Your task to perform on an android device: choose inbox layout in the gmail app Image 0: 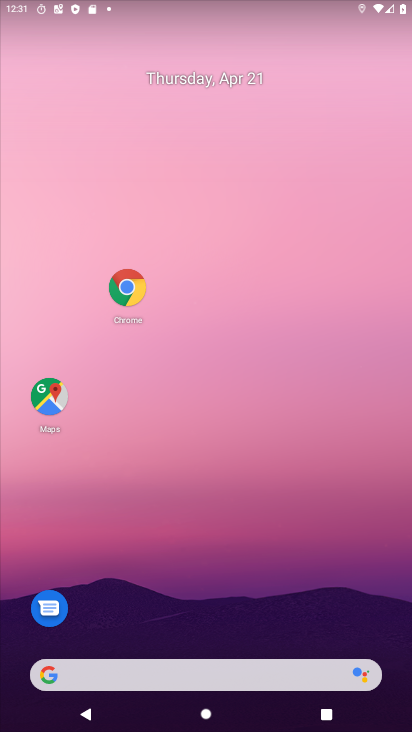
Step 0: drag from (270, 578) to (151, 109)
Your task to perform on an android device: choose inbox layout in the gmail app Image 1: 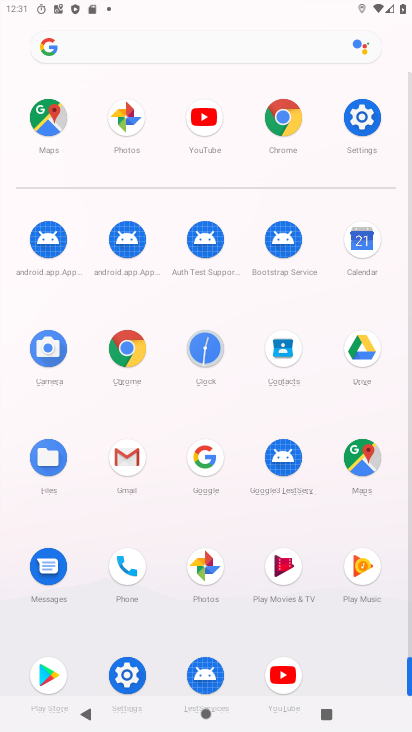
Step 1: click (116, 452)
Your task to perform on an android device: choose inbox layout in the gmail app Image 2: 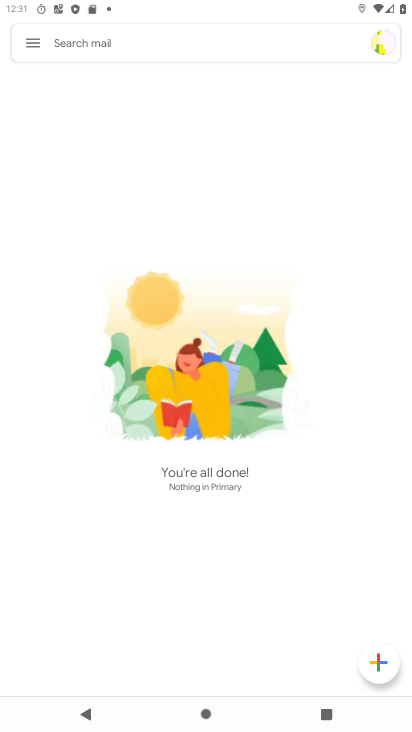
Step 2: click (28, 45)
Your task to perform on an android device: choose inbox layout in the gmail app Image 3: 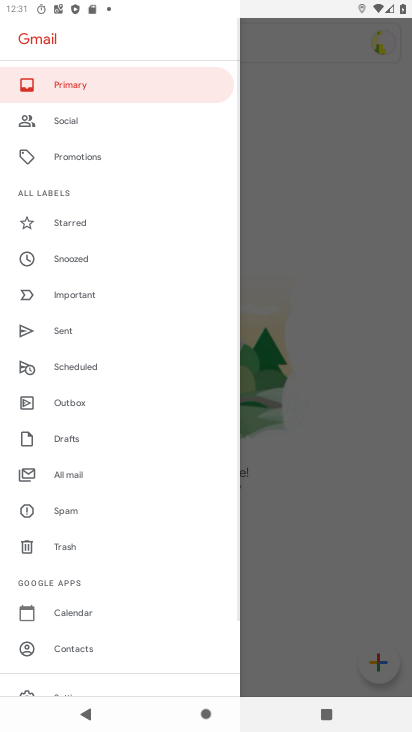
Step 3: click (344, 73)
Your task to perform on an android device: choose inbox layout in the gmail app Image 4: 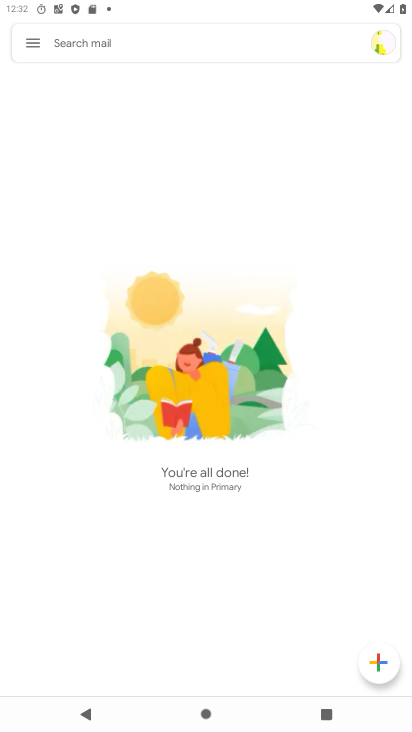
Step 4: click (29, 40)
Your task to perform on an android device: choose inbox layout in the gmail app Image 5: 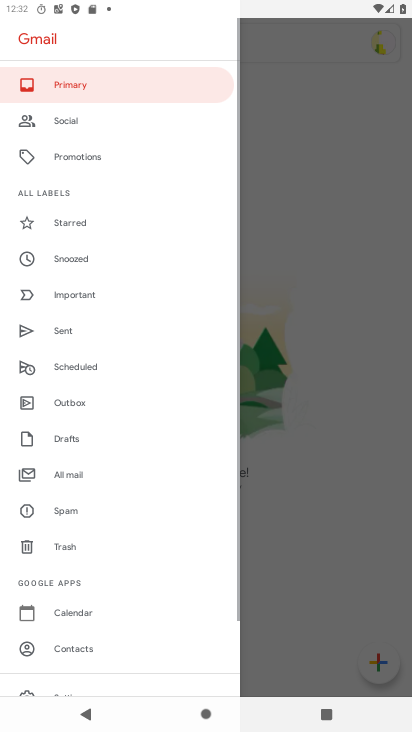
Step 5: drag from (145, 662) to (150, 415)
Your task to perform on an android device: choose inbox layout in the gmail app Image 6: 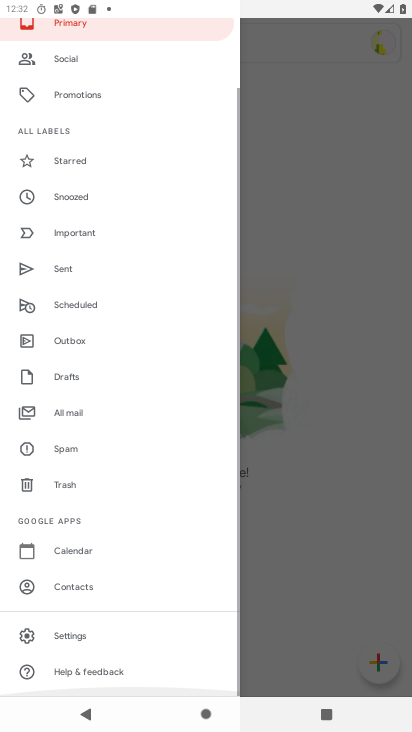
Step 6: click (62, 638)
Your task to perform on an android device: choose inbox layout in the gmail app Image 7: 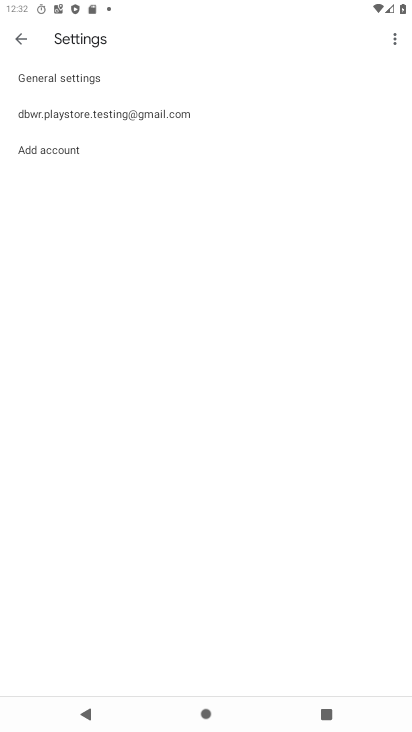
Step 7: click (88, 115)
Your task to perform on an android device: choose inbox layout in the gmail app Image 8: 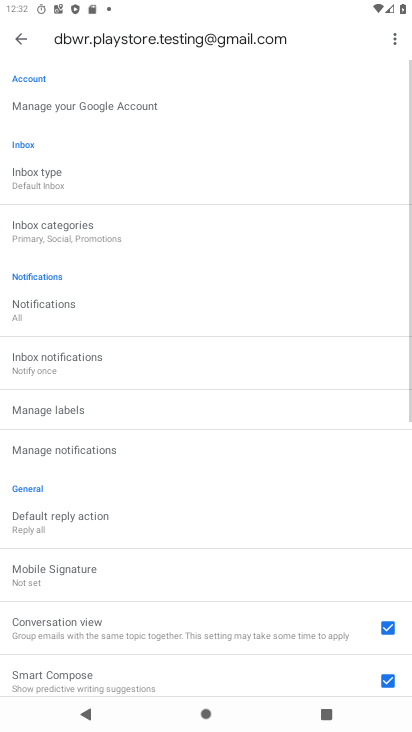
Step 8: click (51, 182)
Your task to perform on an android device: choose inbox layout in the gmail app Image 9: 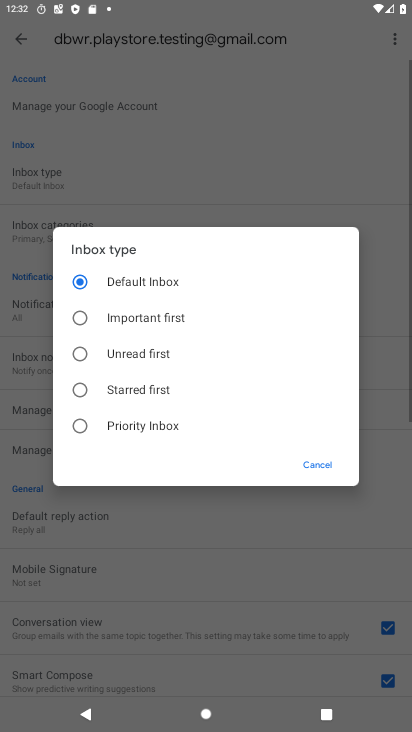
Step 9: click (108, 437)
Your task to perform on an android device: choose inbox layout in the gmail app Image 10: 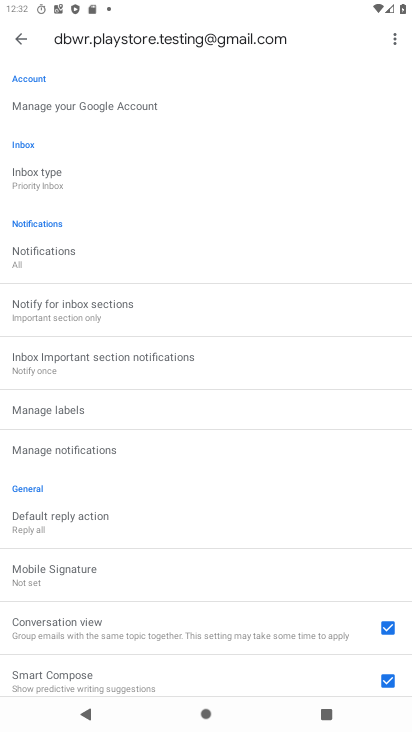
Step 10: press back button
Your task to perform on an android device: choose inbox layout in the gmail app Image 11: 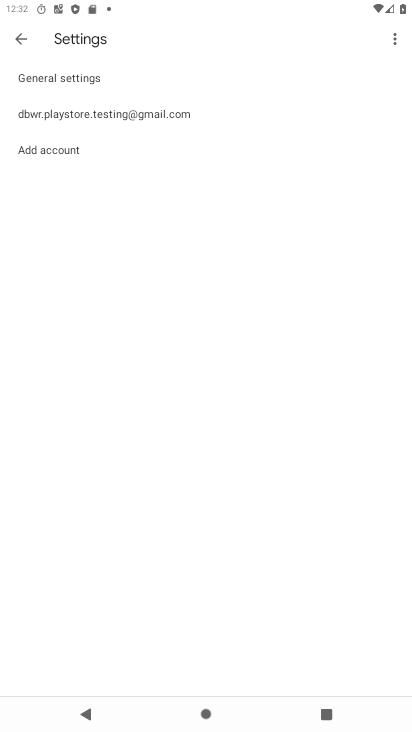
Step 11: press back button
Your task to perform on an android device: choose inbox layout in the gmail app Image 12: 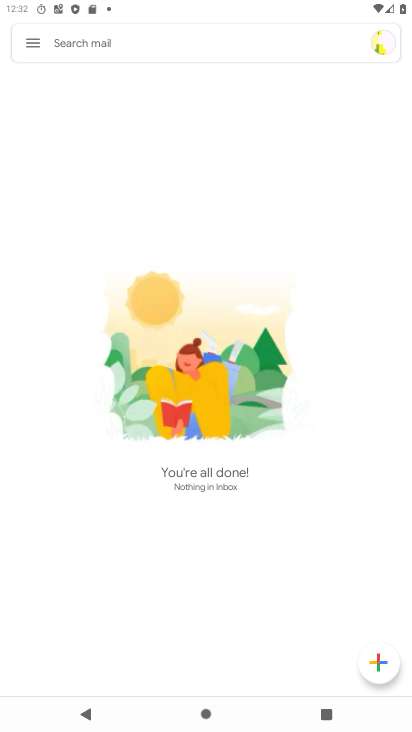
Step 12: click (37, 41)
Your task to perform on an android device: choose inbox layout in the gmail app Image 13: 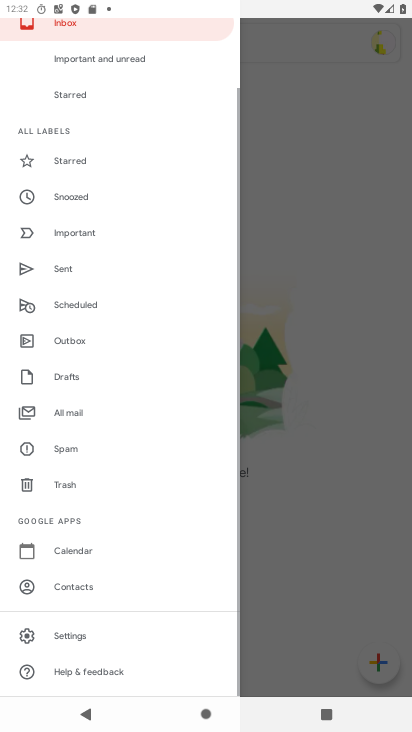
Step 13: drag from (73, 95) to (71, 192)
Your task to perform on an android device: choose inbox layout in the gmail app Image 14: 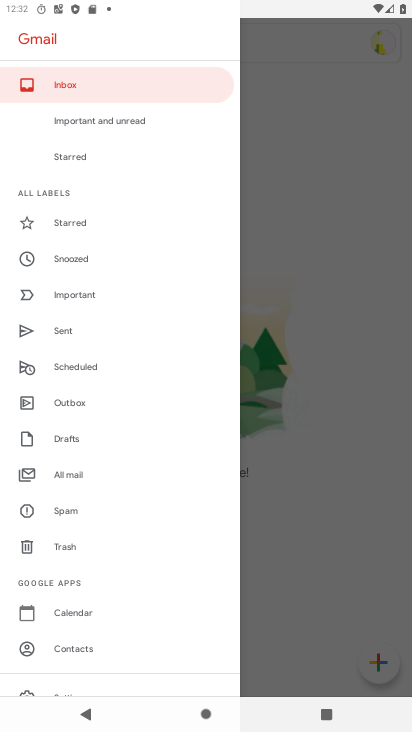
Step 14: click (67, 88)
Your task to perform on an android device: choose inbox layout in the gmail app Image 15: 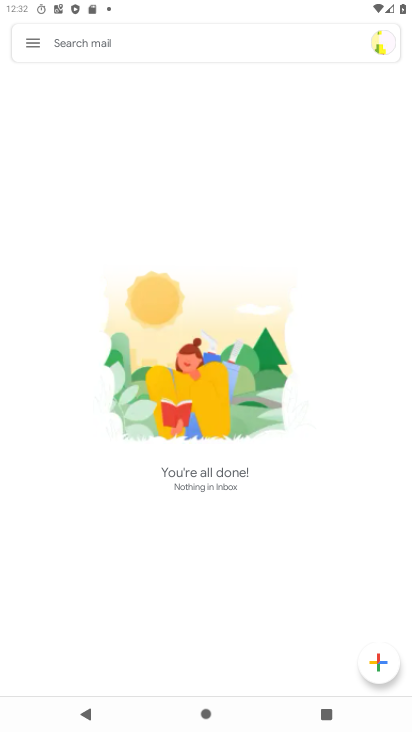
Step 15: task complete